Your task to perform on an android device: change notification settings in the gmail app Image 0: 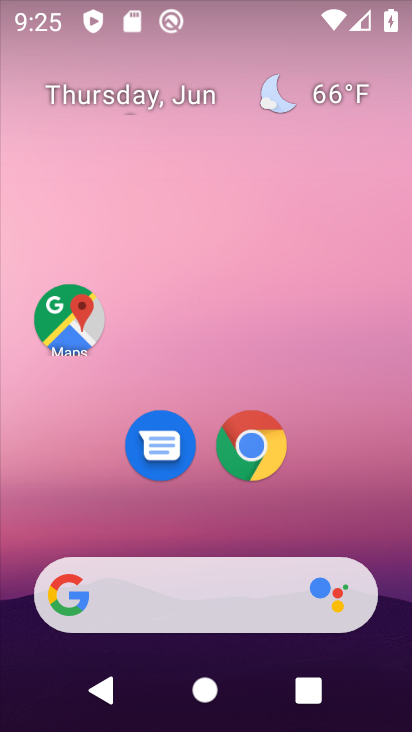
Step 0: drag from (198, 529) to (195, 11)
Your task to perform on an android device: change notification settings in the gmail app Image 1: 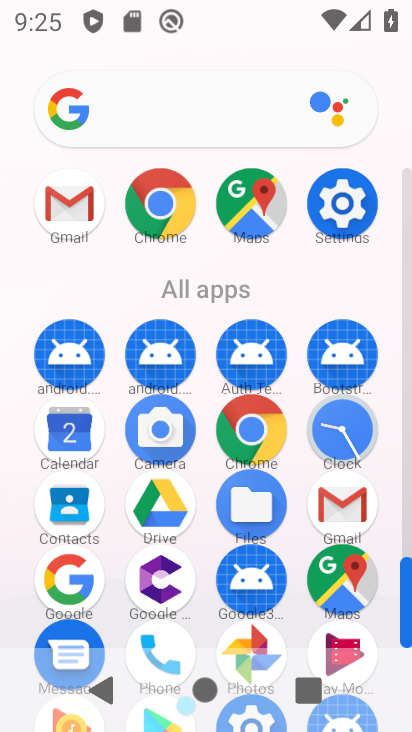
Step 1: click (342, 500)
Your task to perform on an android device: change notification settings in the gmail app Image 2: 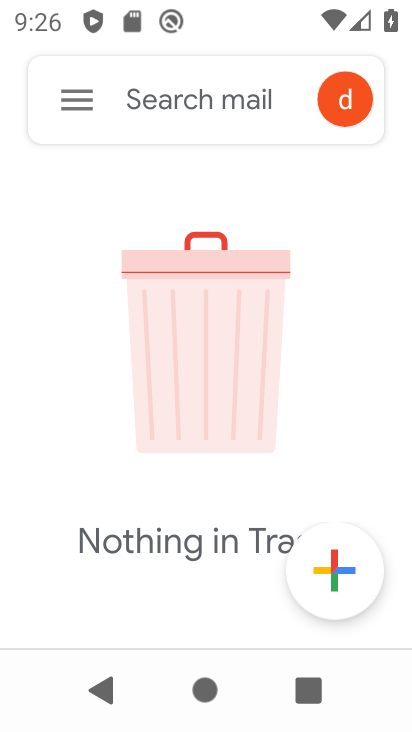
Step 2: click (64, 94)
Your task to perform on an android device: change notification settings in the gmail app Image 3: 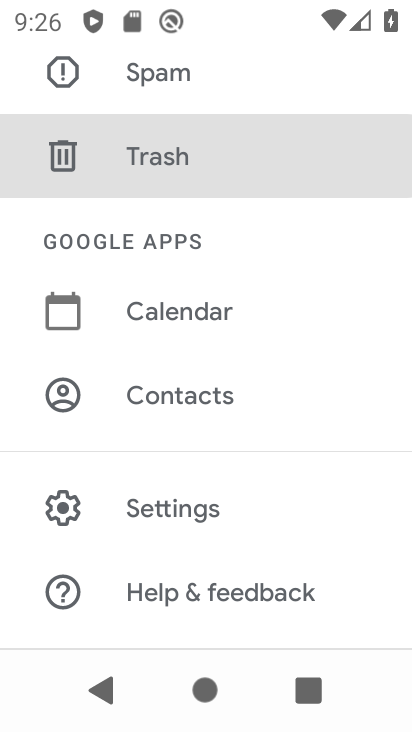
Step 3: click (166, 521)
Your task to perform on an android device: change notification settings in the gmail app Image 4: 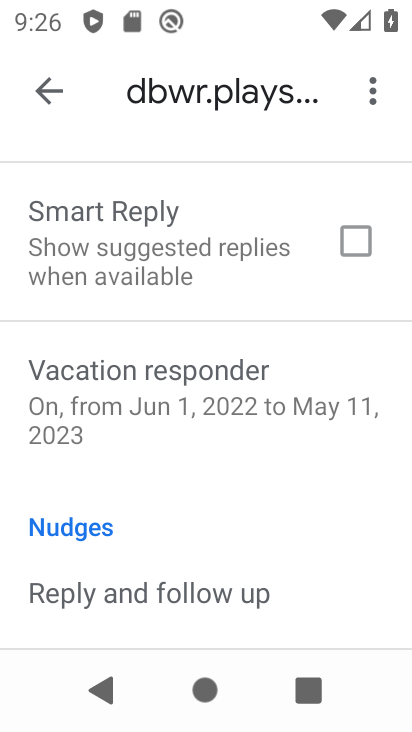
Step 4: drag from (222, 424) to (225, 687)
Your task to perform on an android device: change notification settings in the gmail app Image 5: 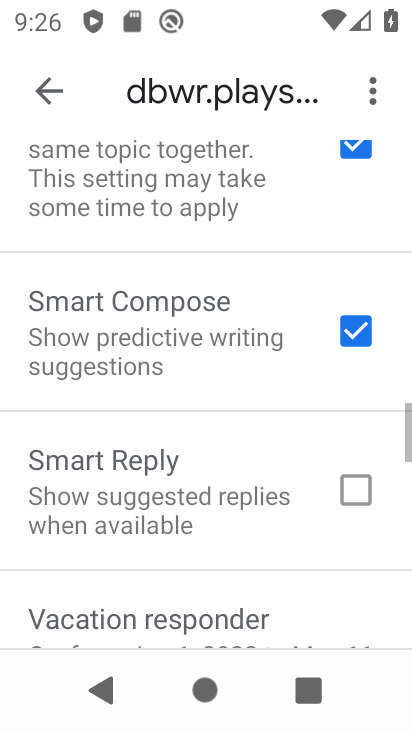
Step 5: drag from (156, 289) to (184, 497)
Your task to perform on an android device: change notification settings in the gmail app Image 6: 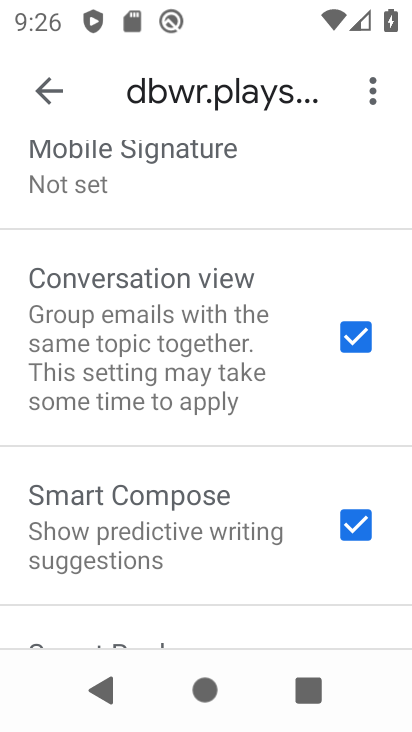
Step 6: drag from (153, 219) to (199, 475)
Your task to perform on an android device: change notification settings in the gmail app Image 7: 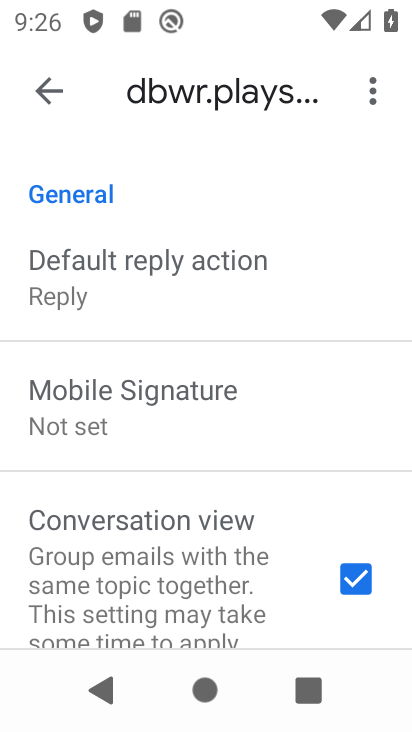
Step 7: drag from (170, 220) to (212, 448)
Your task to perform on an android device: change notification settings in the gmail app Image 8: 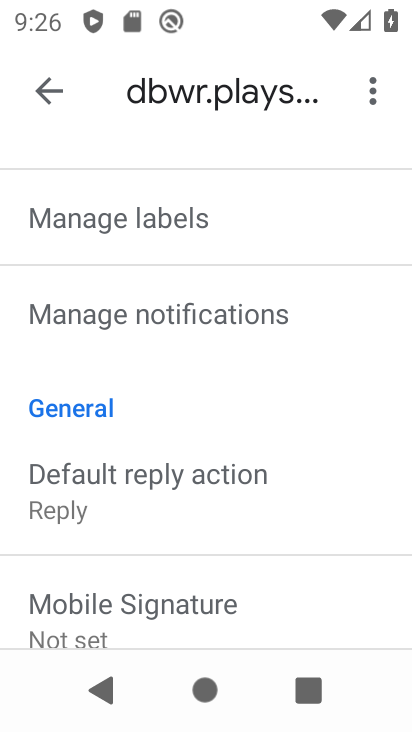
Step 8: click (159, 316)
Your task to perform on an android device: change notification settings in the gmail app Image 9: 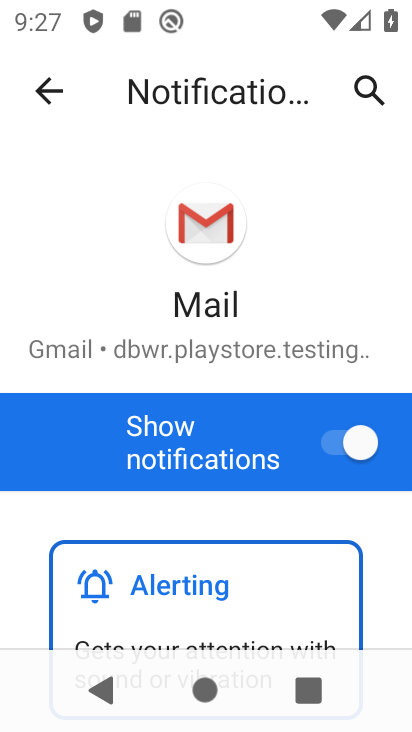
Step 9: click (346, 445)
Your task to perform on an android device: change notification settings in the gmail app Image 10: 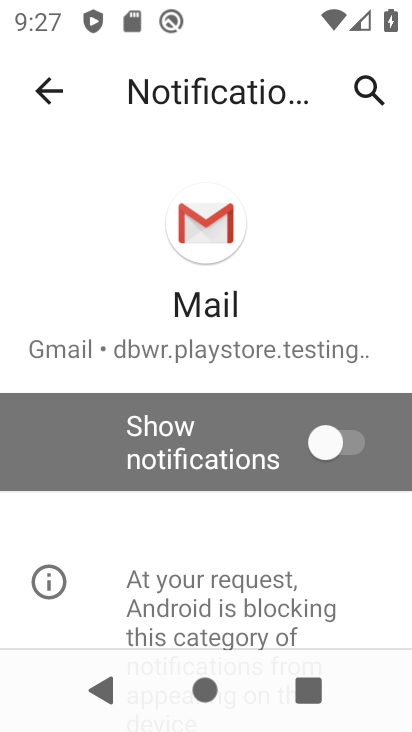
Step 10: task complete